Your task to perform on an android device: Toggle the flashlight Image 0: 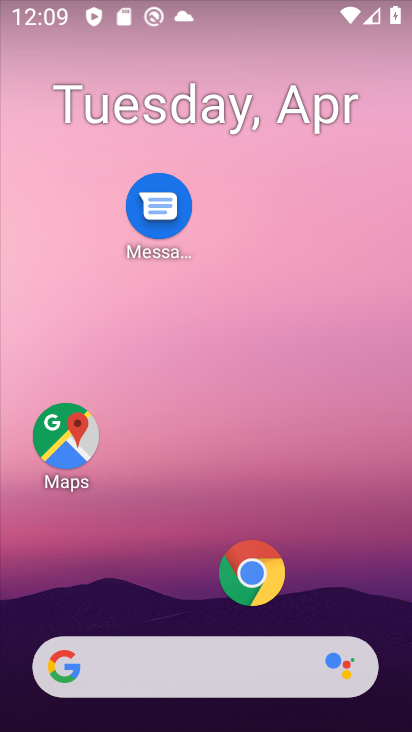
Step 0: drag from (186, 617) to (151, 20)
Your task to perform on an android device: Toggle the flashlight Image 1: 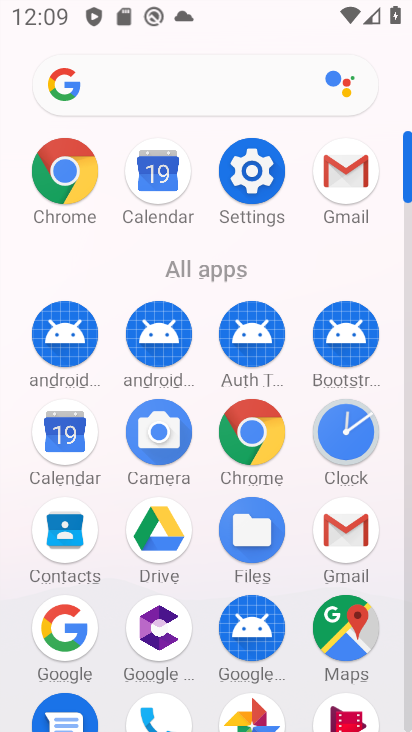
Step 1: click (259, 163)
Your task to perform on an android device: Toggle the flashlight Image 2: 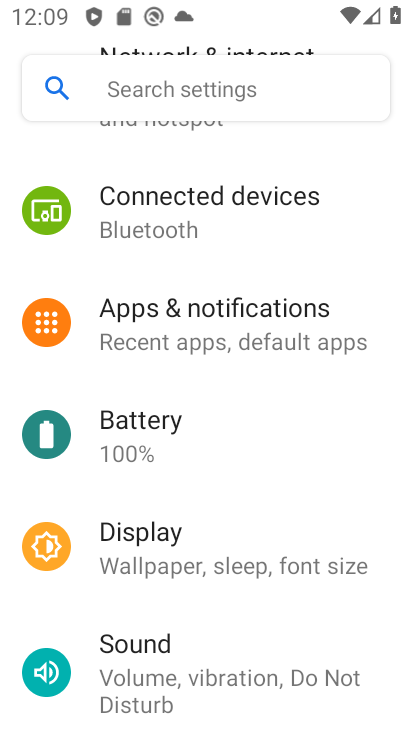
Step 2: click (131, 105)
Your task to perform on an android device: Toggle the flashlight Image 3: 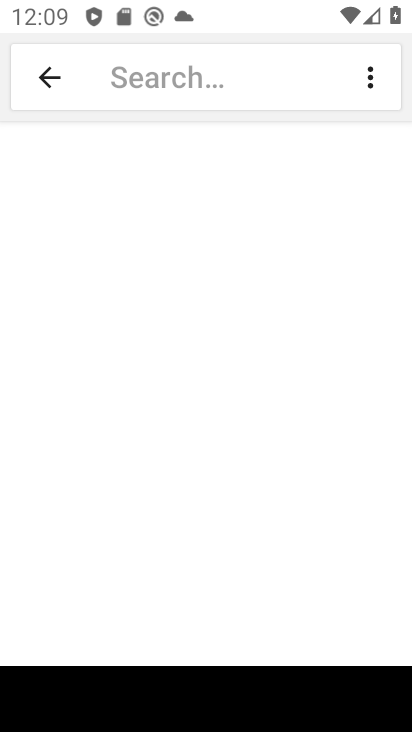
Step 3: type "flashlight"
Your task to perform on an android device: Toggle the flashlight Image 4: 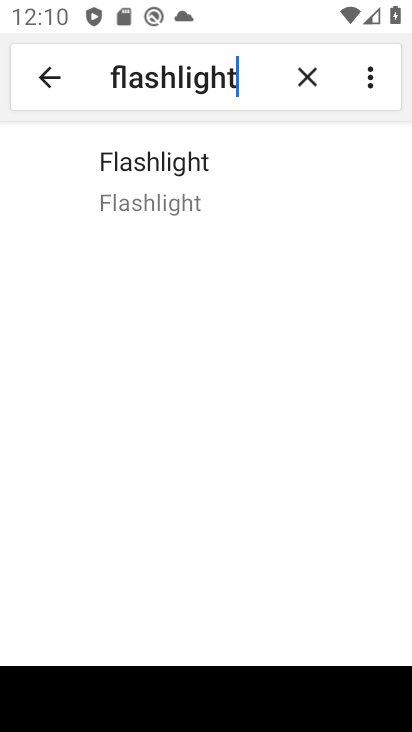
Step 4: task complete